Your task to perform on an android device: What's the weather going to be tomorrow? Image 0: 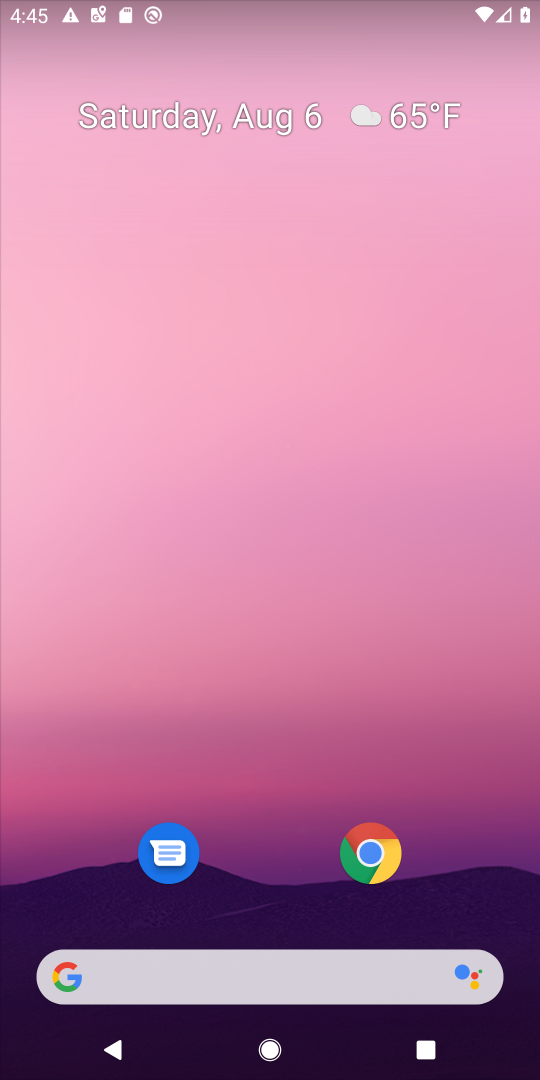
Step 0: click (181, 985)
Your task to perform on an android device: What's the weather going to be tomorrow? Image 1: 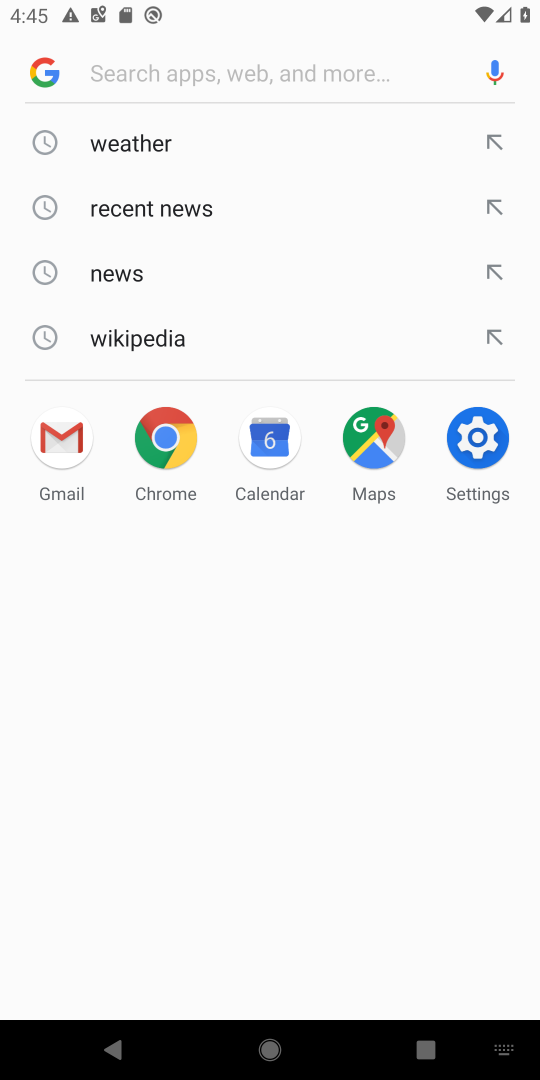
Step 1: click (214, 148)
Your task to perform on an android device: What's the weather going to be tomorrow? Image 2: 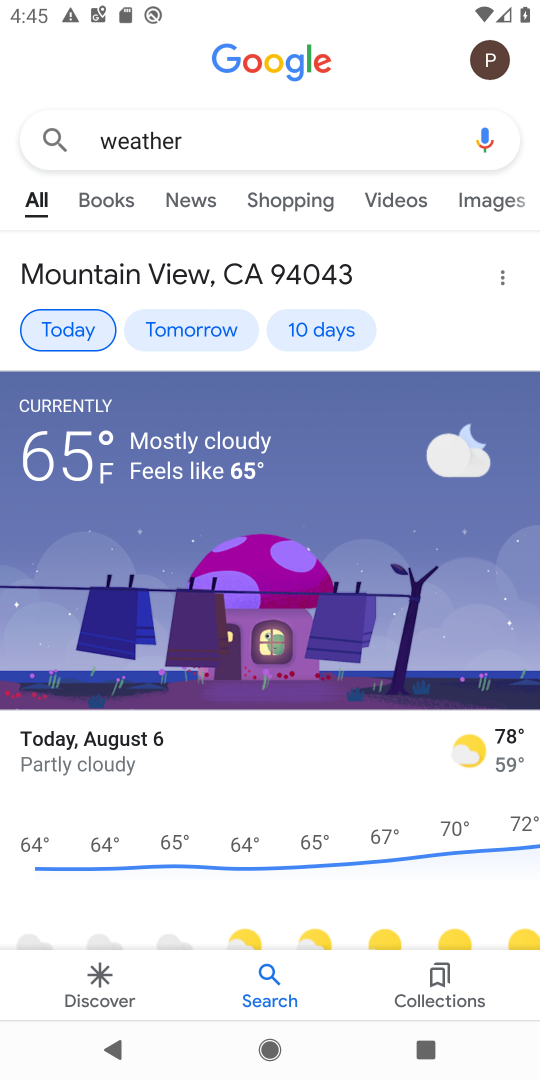
Step 2: click (175, 324)
Your task to perform on an android device: What's the weather going to be tomorrow? Image 3: 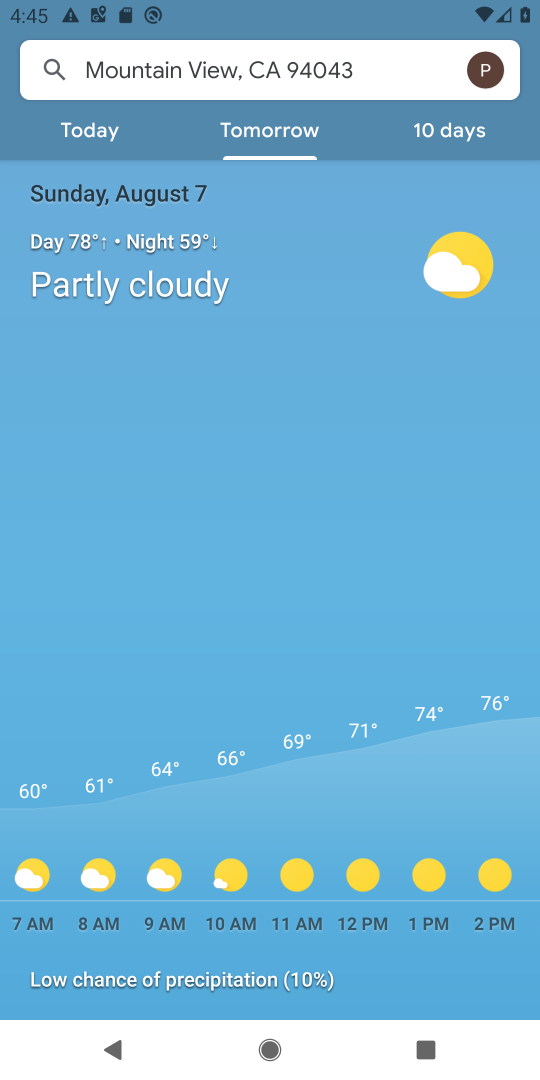
Step 3: task complete